Your task to perform on an android device: change your default location settings in chrome Image 0: 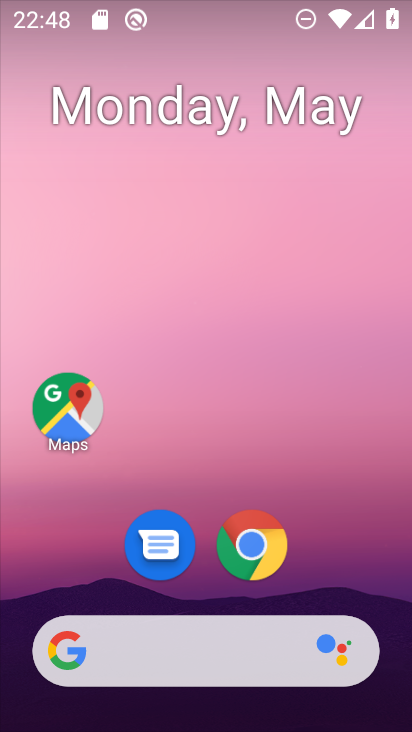
Step 0: click (257, 547)
Your task to perform on an android device: change your default location settings in chrome Image 1: 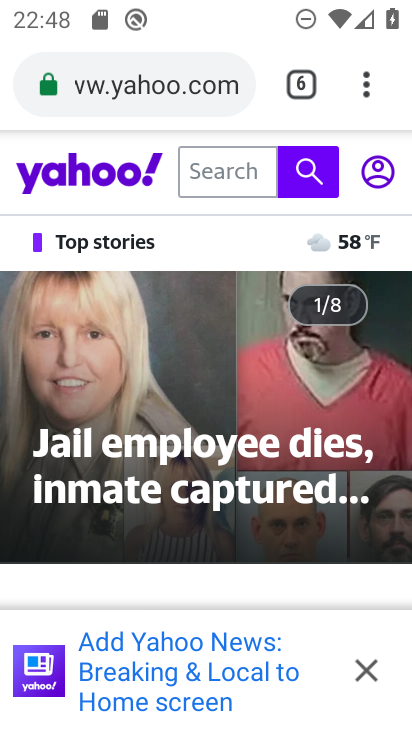
Step 1: click (368, 85)
Your task to perform on an android device: change your default location settings in chrome Image 2: 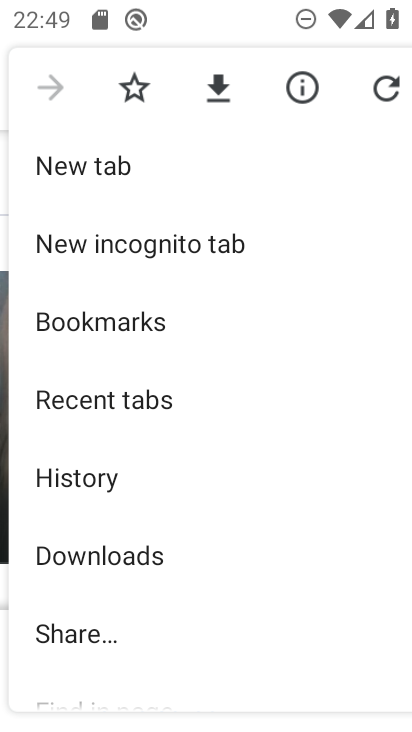
Step 2: drag from (181, 563) to (113, 271)
Your task to perform on an android device: change your default location settings in chrome Image 3: 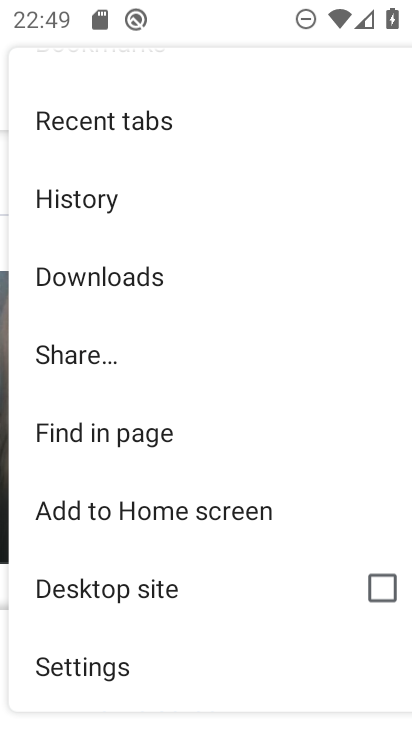
Step 3: click (83, 662)
Your task to perform on an android device: change your default location settings in chrome Image 4: 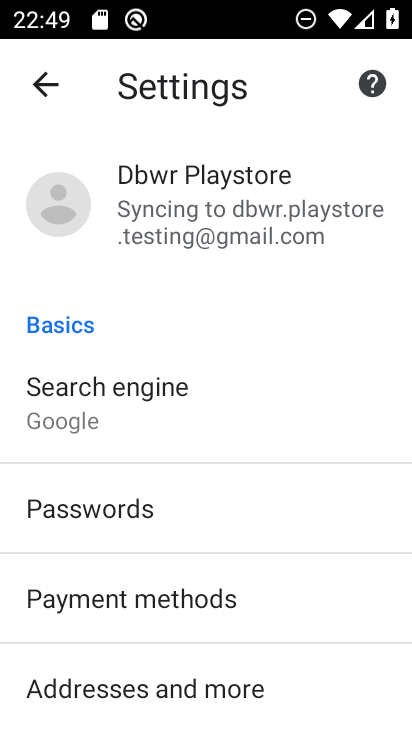
Step 4: drag from (237, 530) to (220, 234)
Your task to perform on an android device: change your default location settings in chrome Image 5: 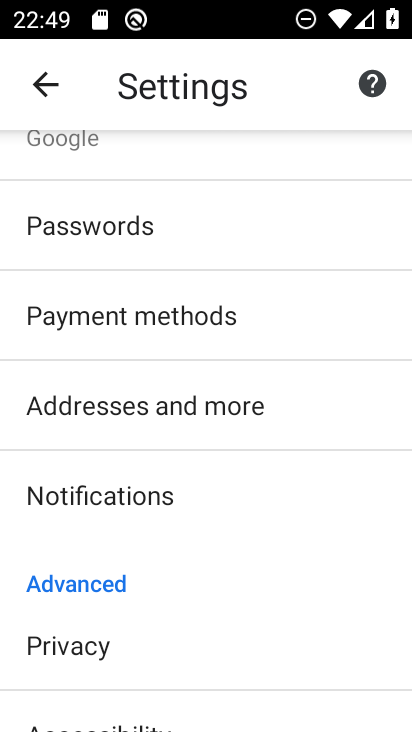
Step 5: drag from (179, 604) to (148, 275)
Your task to perform on an android device: change your default location settings in chrome Image 6: 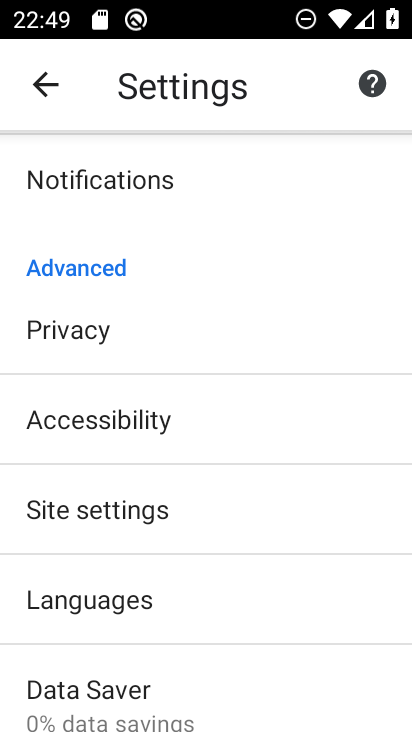
Step 6: click (101, 512)
Your task to perform on an android device: change your default location settings in chrome Image 7: 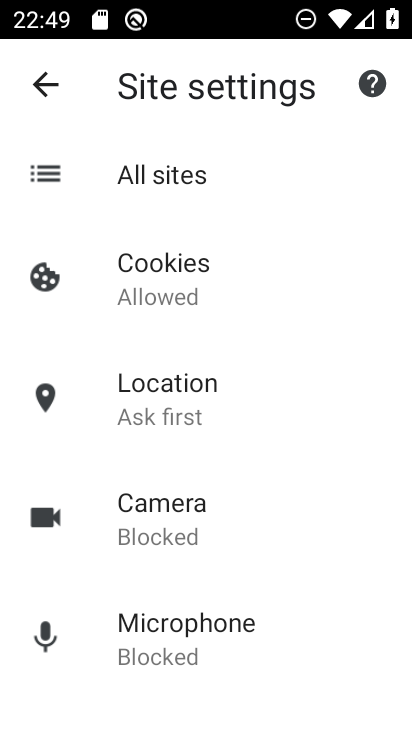
Step 7: click (157, 376)
Your task to perform on an android device: change your default location settings in chrome Image 8: 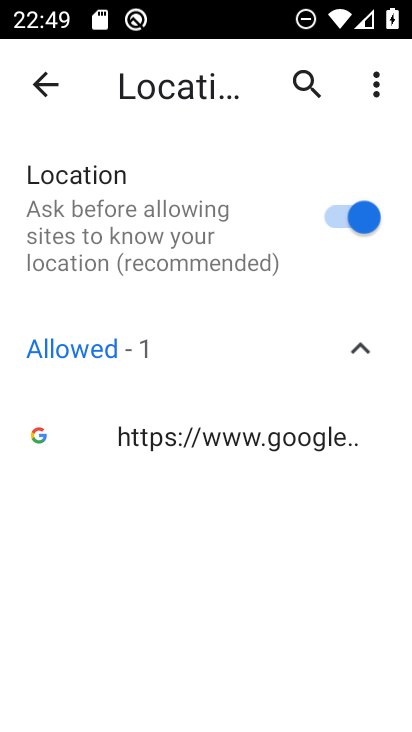
Step 8: click (350, 214)
Your task to perform on an android device: change your default location settings in chrome Image 9: 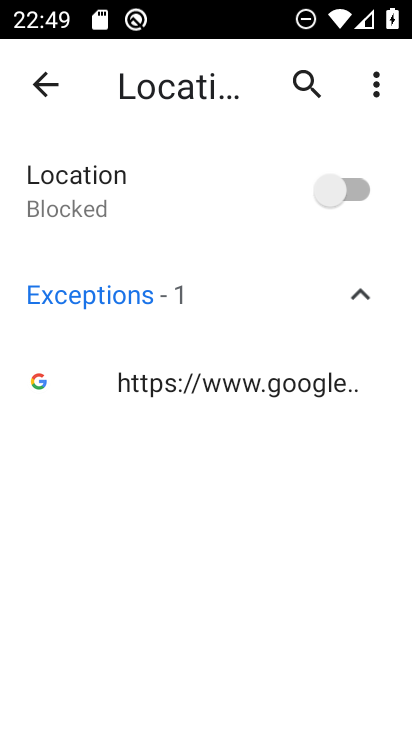
Step 9: task complete